Your task to perform on an android device: Open my contact list Image 0: 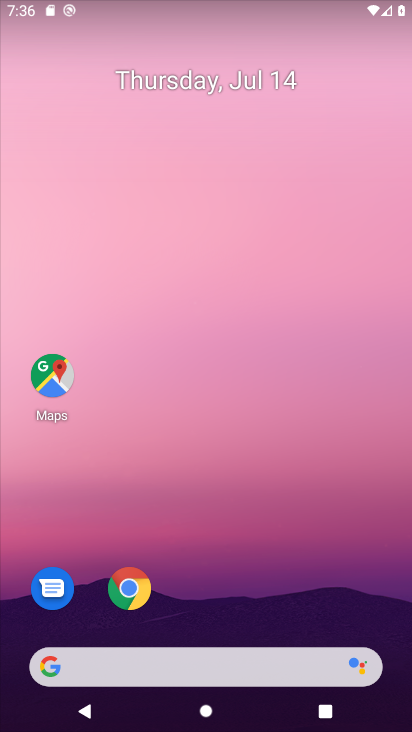
Step 0: drag from (189, 611) to (185, 59)
Your task to perform on an android device: Open my contact list Image 1: 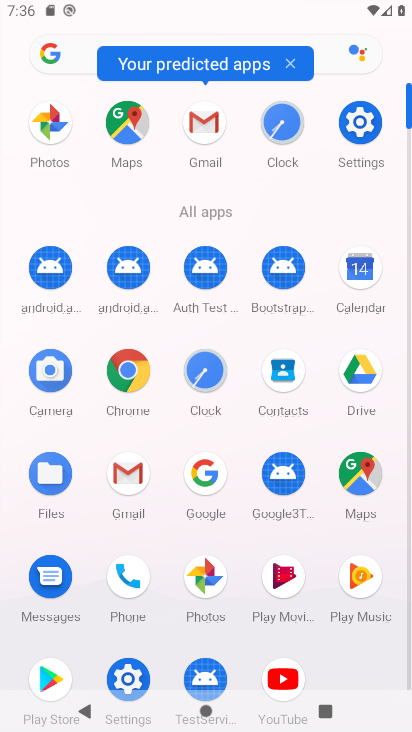
Step 1: click (100, 576)
Your task to perform on an android device: Open my contact list Image 2: 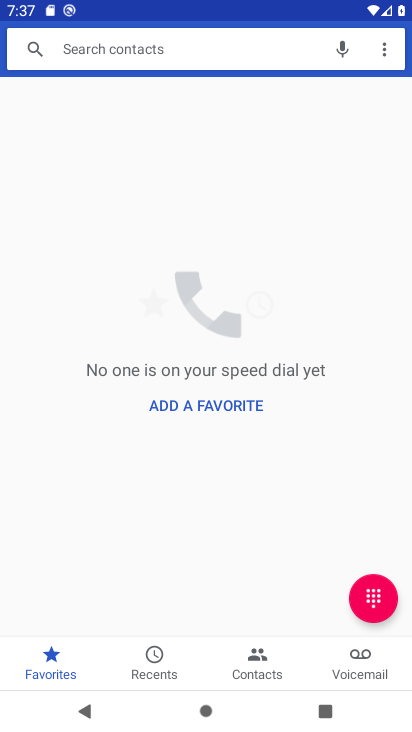
Step 2: click (273, 658)
Your task to perform on an android device: Open my contact list Image 3: 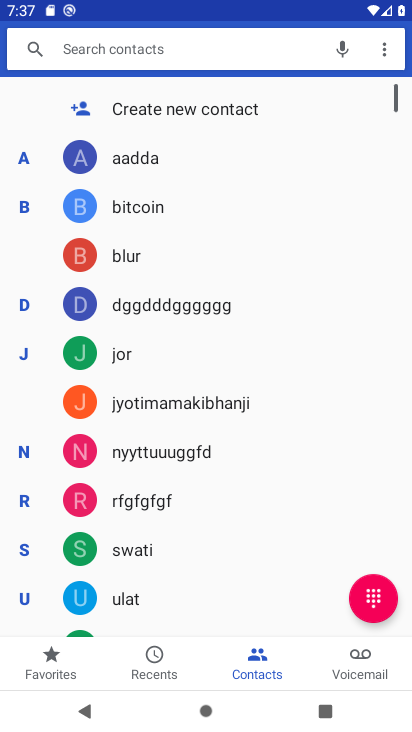
Step 3: task complete